Your task to perform on an android device: turn off translation in the chrome app Image 0: 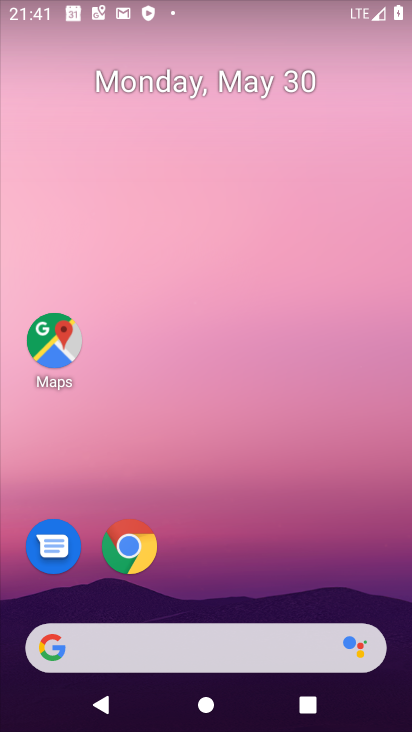
Step 0: drag from (224, 550) to (226, 156)
Your task to perform on an android device: turn off translation in the chrome app Image 1: 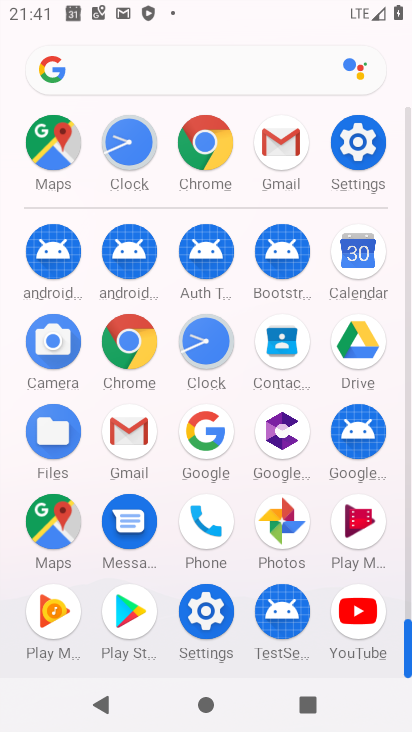
Step 1: click (135, 366)
Your task to perform on an android device: turn off translation in the chrome app Image 2: 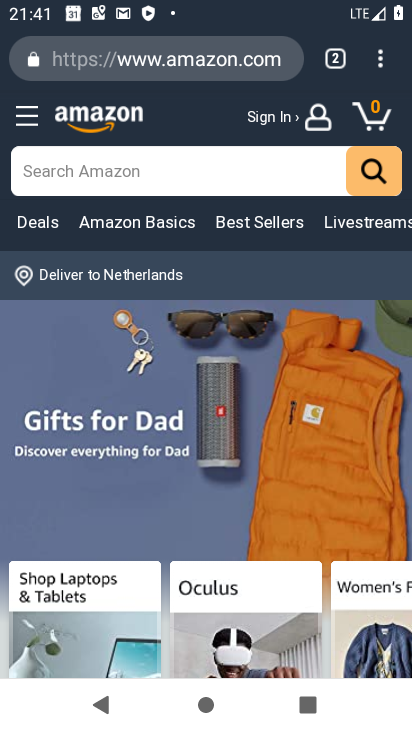
Step 2: click (202, 81)
Your task to perform on an android device: turn off translation in the chrome app Image 3: 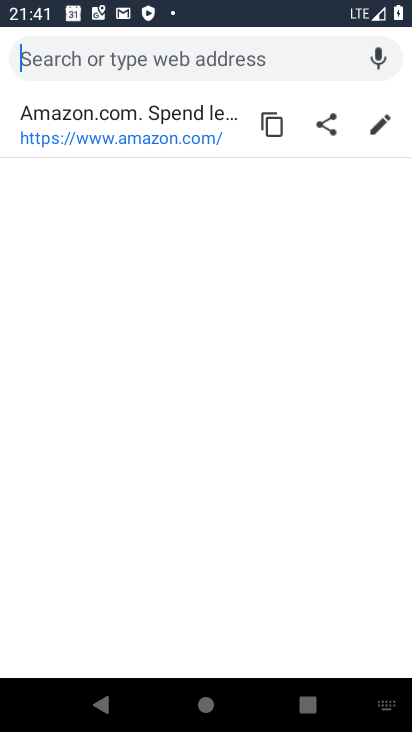
Step 3: press back button
Your task to perform on an android device: turn off translation in the chrome app Image 4: 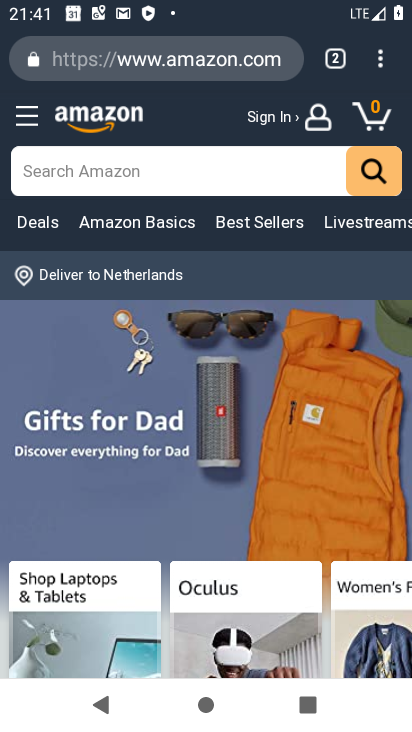
Step 4: drag from (381, 75) to (206, 585)
Your task to perform on an android device: turn off translation in the chrome app Image 5: 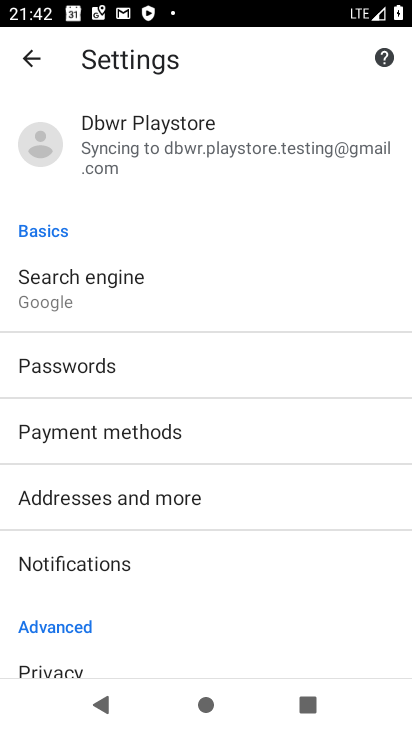
Step 5: drag from (205, 584) to (249, 292)
Your task to perform on an android device: turn off translation in the chrome app Image 6: 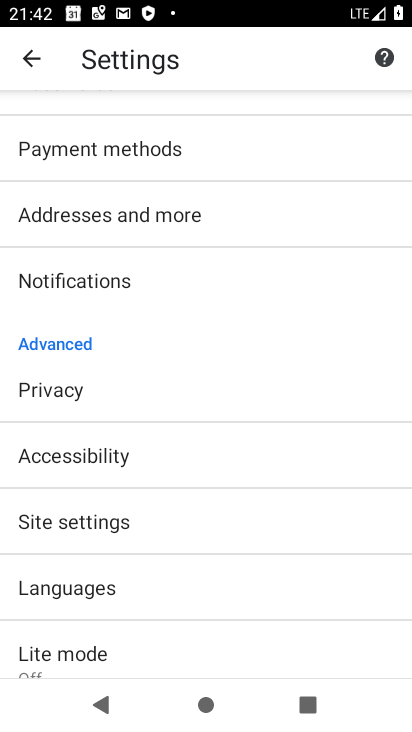
Step 6: drag from (194, 646) to (196, 407)
Your task to perform on an android device: turn off translation in the chrome app Image 7: 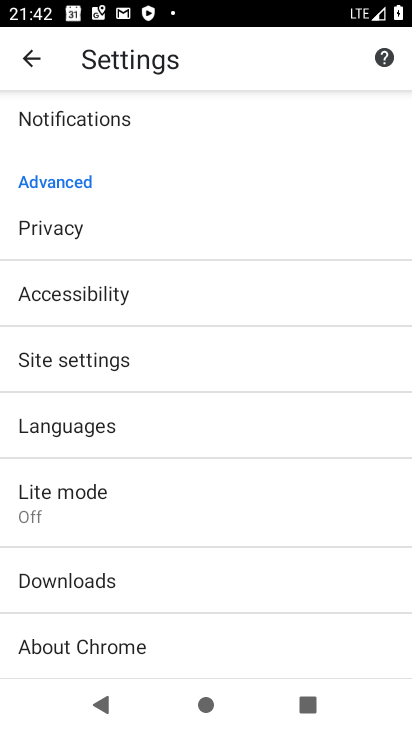
Step 7: click (144, 424)
Your task to perform on an android device: turn off translation in the chrome app Image 8: 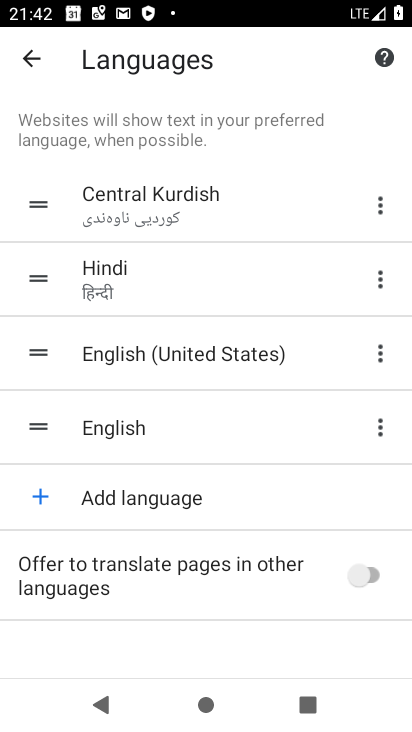
Step 8: task complete